Your task to perform on an android device: What's on my calendar today? Image 0: 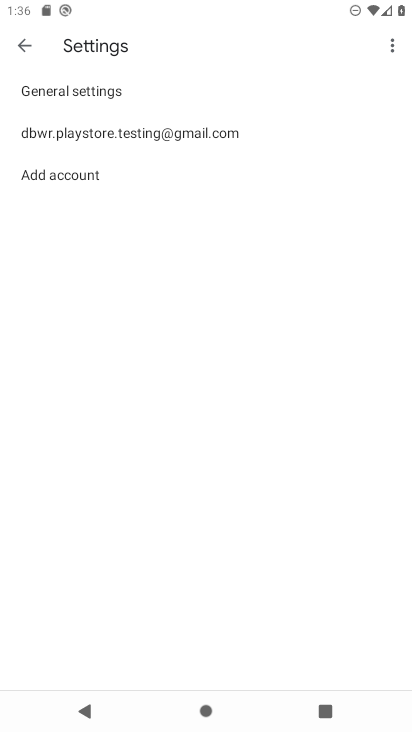
Step 0: press home button
Your task to perform on an android device: What's on my calendar today? Image 1: 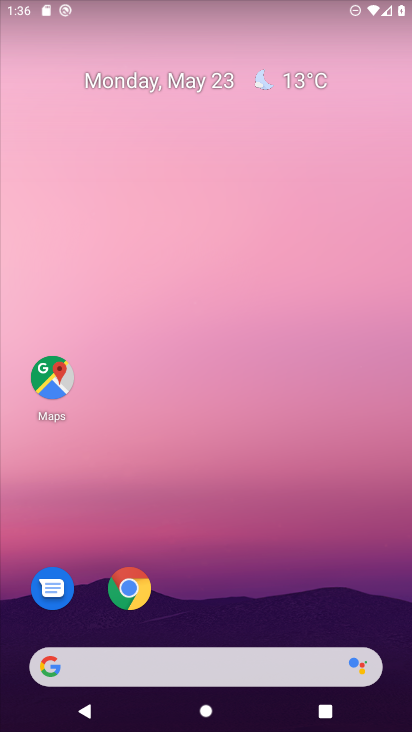
Step 1: drag from (184, 668) to (184, 360)
Your task to perform on an android device: What's on my calendar today? Image 2: 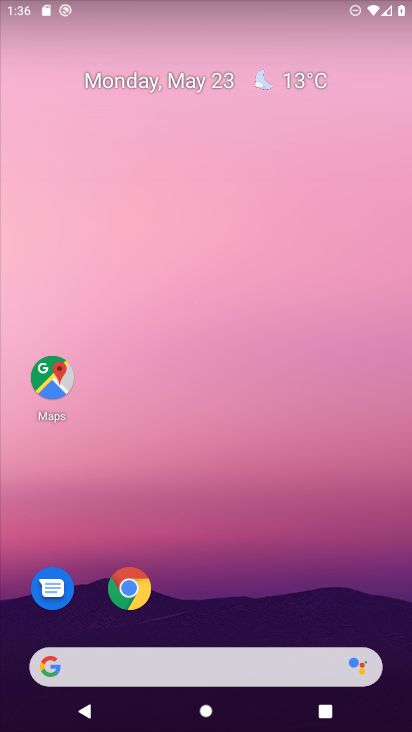
Step 2: drag from (209, 659) to (189, 235)
Your task to perform on an android device: What's on my calendar today? Image 3: 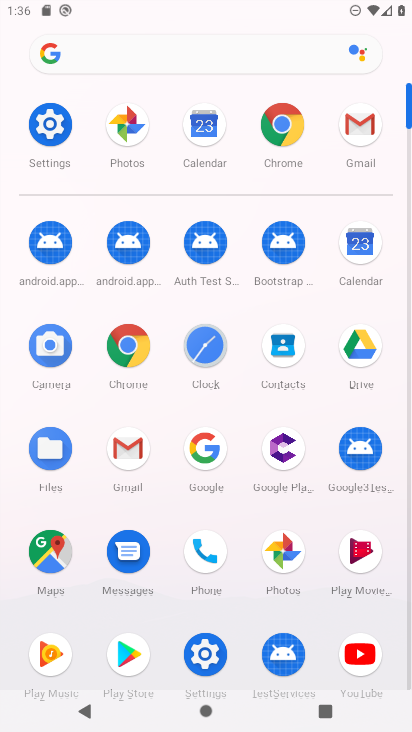
Step 3: click (209, 123)
Your task to perform on an android device: What's on my calendar today? Image 4: 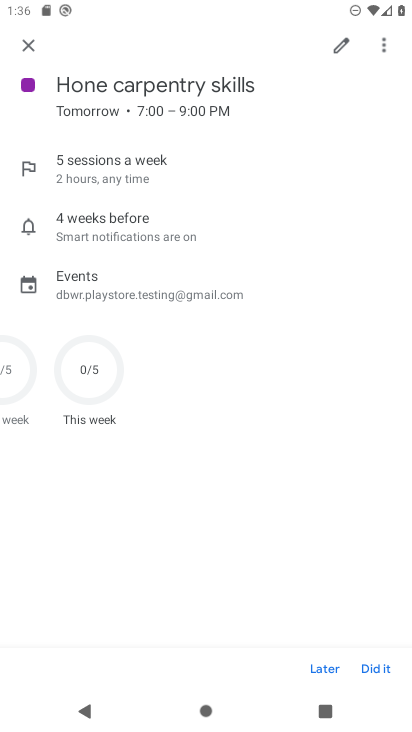
Step 4: click (326, 665)
Your task to perform on an android device: What's on my calendar today? Image 5: 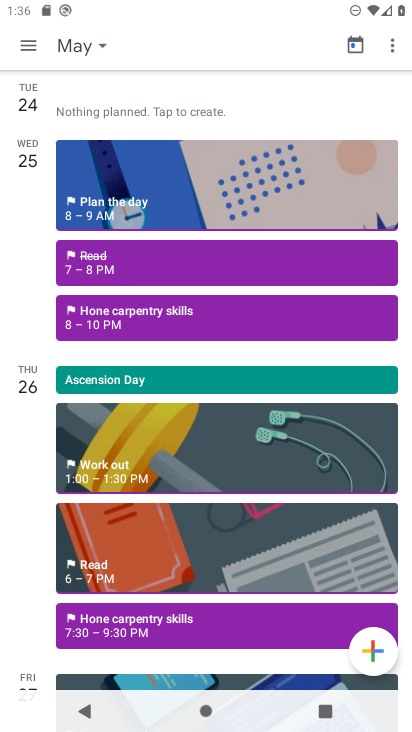
Step 5: click (82, 41)
Your task to perform on an android device: What's on my calendar today? Image 6: 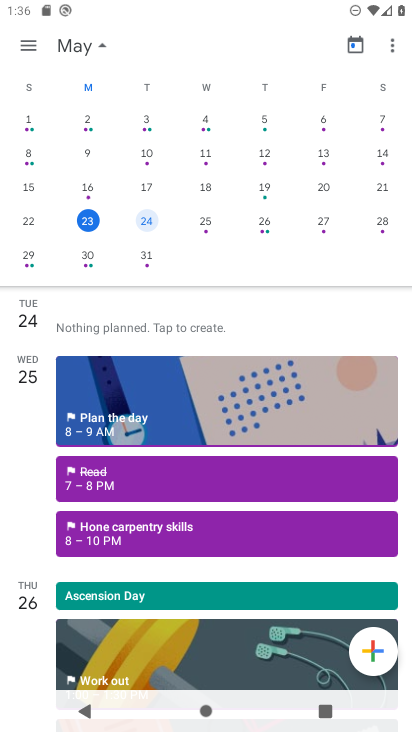
Step 6: click (106, 213)
Your task to perform on an android device: What's on my calendar today? Image 7: 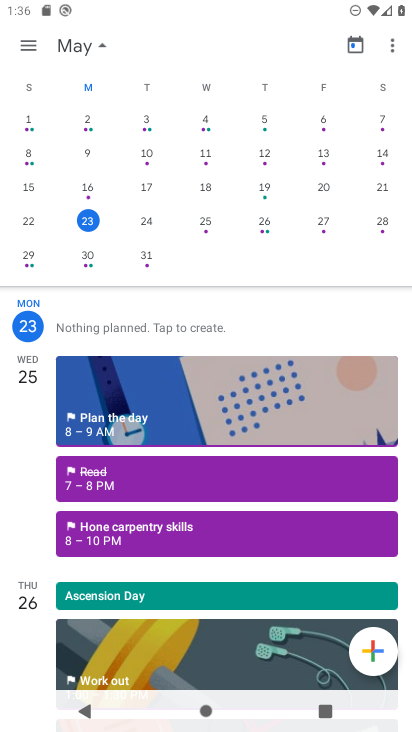
Step 7: click (91, 217)
Your task to perform on an android device: What's on my calendar today? Image 8: 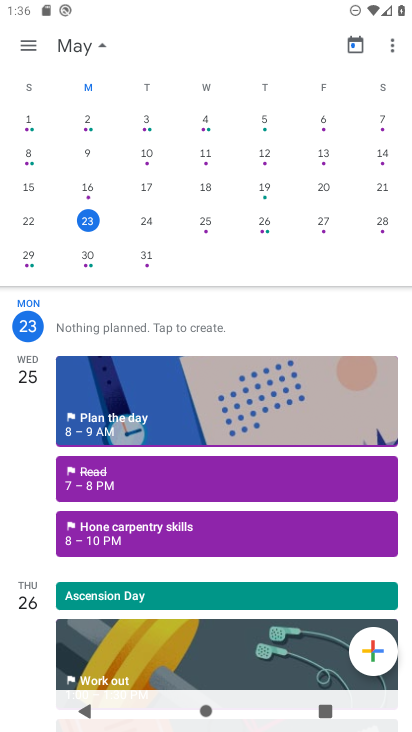
Step 8: click (112, 331)
Your task to perform on an android device: What's on my calendar today? Image 9: 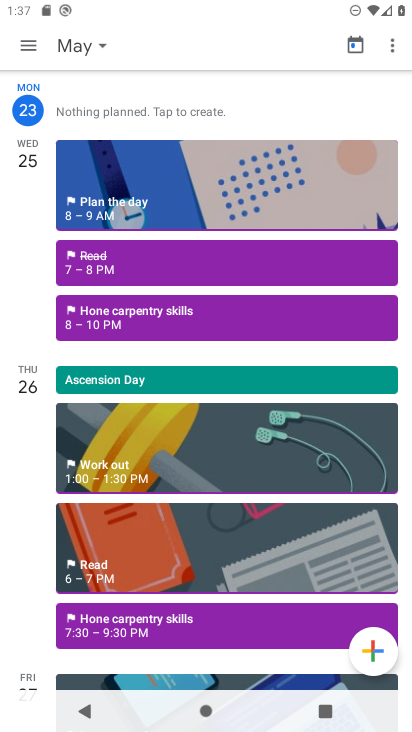
Step 9: task complete